Your task to perform on an android device: Open calendar and show me the fourth week of next month Image 0: 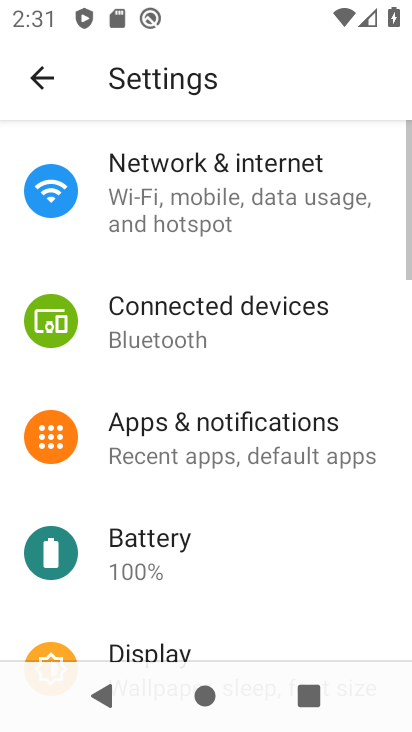
Step 0: press home button
Your task to perform on an android device: Open calendar and show me the fourth week of next month Image 1: 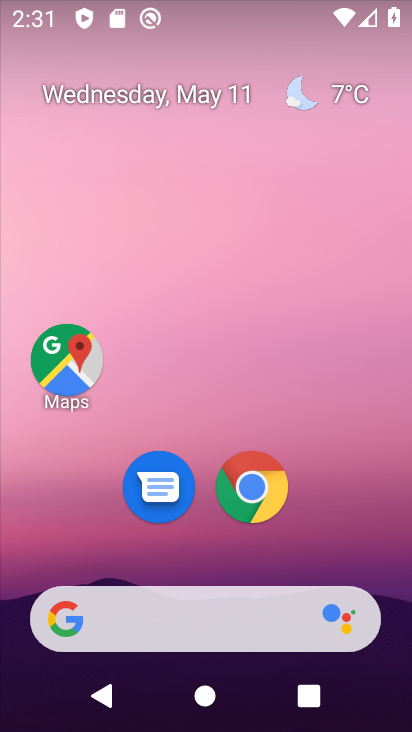
Step 1: drag from (73, 616) to (78, 26)
Your task to perform on an android device: Open calendar and show me the fourth week of next month Image 2: 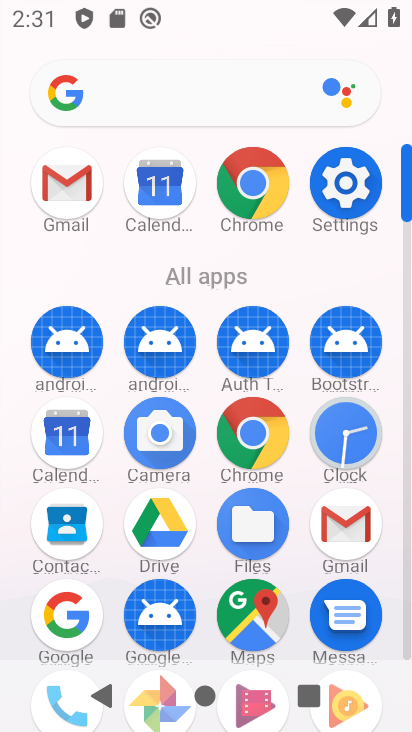
Step 2: click (77, 459)
Your task to perform on an android device: Open calendar and show me the fourth week of next month Image 3: 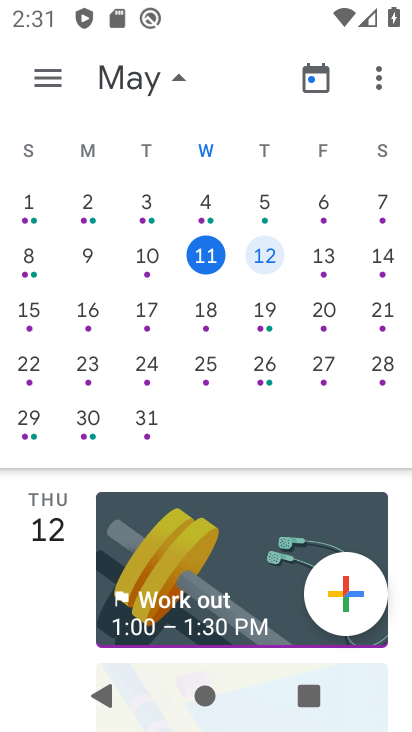
Step 3: drag from (253, 395) to (11, 412)
Your task to perform on an android device: Open calendar and show me the fourth week of next month Image 4: 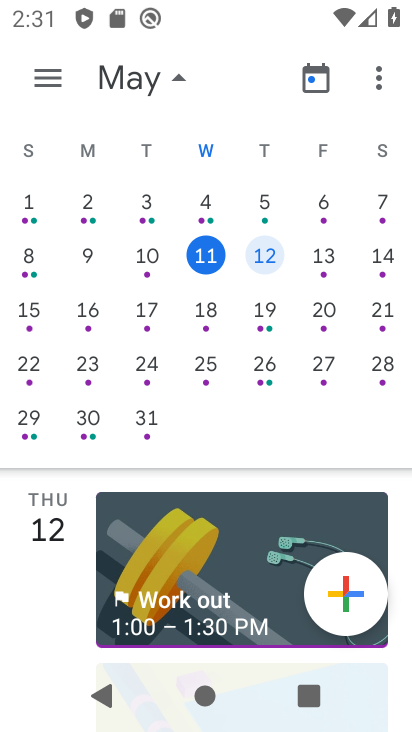
Step 4: drag from (357, 295) to (1, 334)
Your task to perform on an android device: Open calendar and show me the fourth week of next month Image 5: 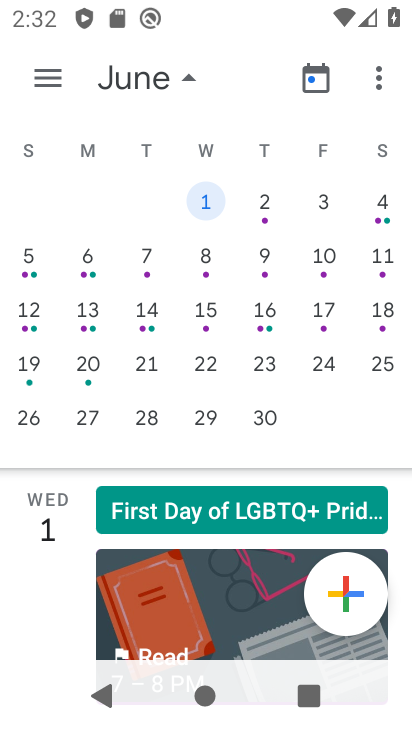
Step 5: click (273, 369)
Your task to perform on an android device: Open calendar and show me the fourth week of next month Image 6: 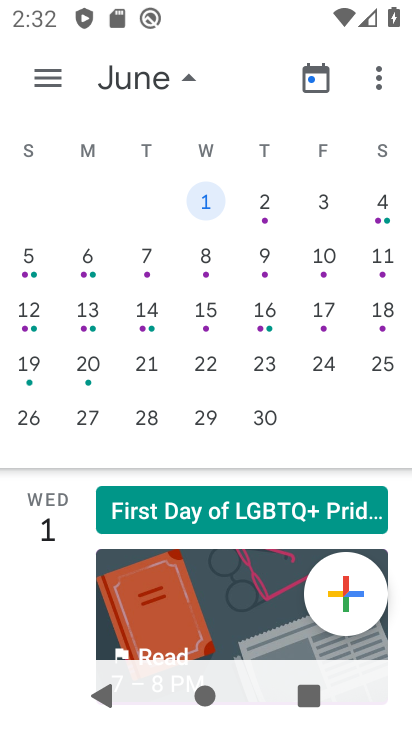
Step 6: click (254, 366)
Your task to perform on an android device: Open calendar and show me the fourth week of next month Image 7: 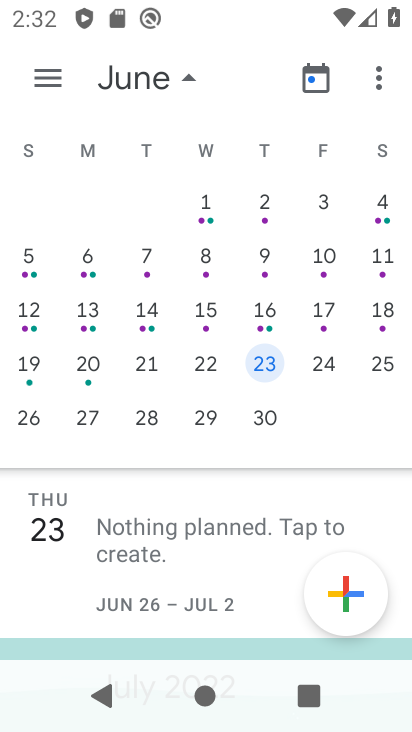
Step 7: task complete